Your task to perform on an android device: uninstall "Pandora - Music & Podcasts" Image 0: 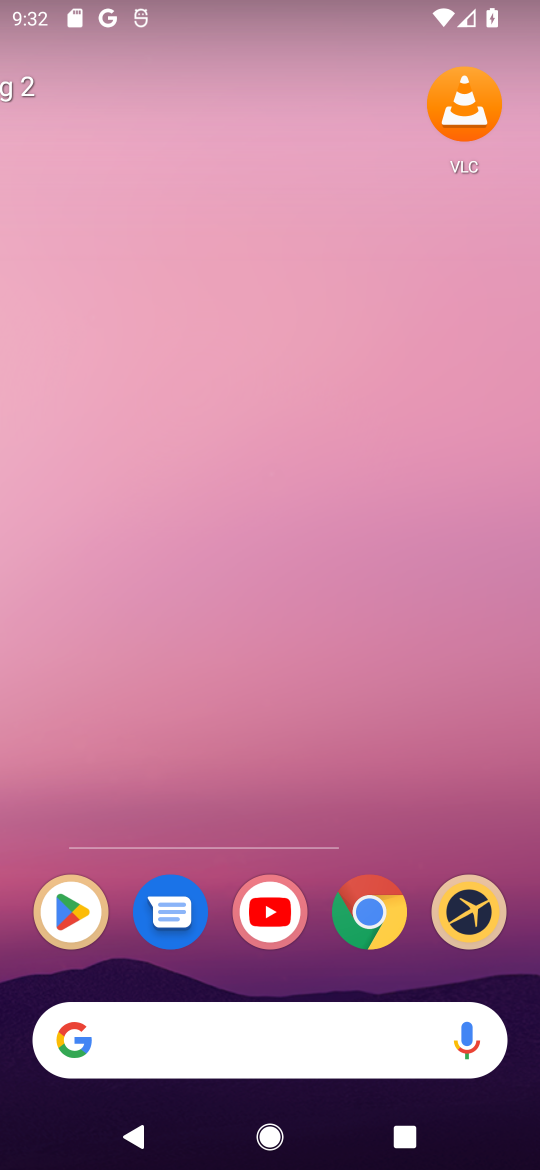
Step 0: press home button
Your task to perform on an android device: uninstall "Pandora - Music & Podcasts" Image 1: 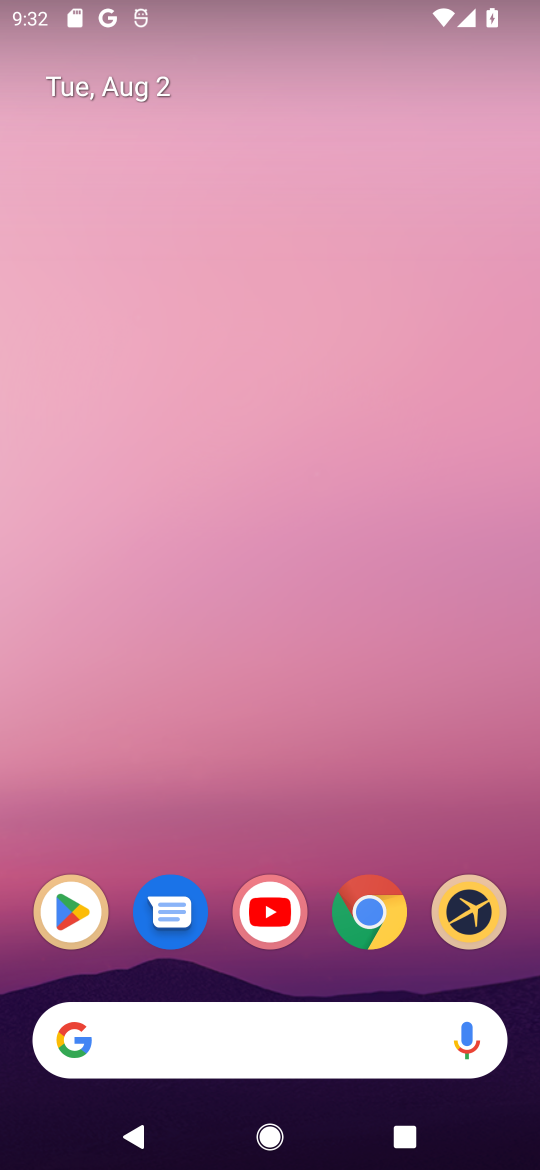
Step 1: click (66, 902)
Your task to perform on an android device: uninstall "Pandora - Music & Podcasts" Image 2: 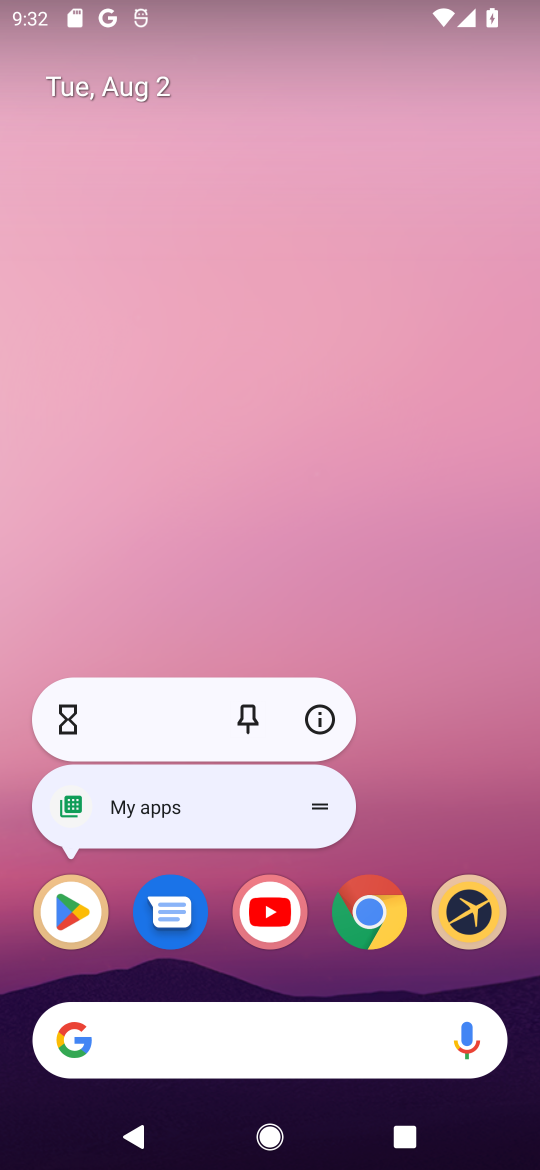
Step 2: click (58, 904)
Your task to perform on an android device: uninstall "Pandora - Music & Podcasts" Image 3: 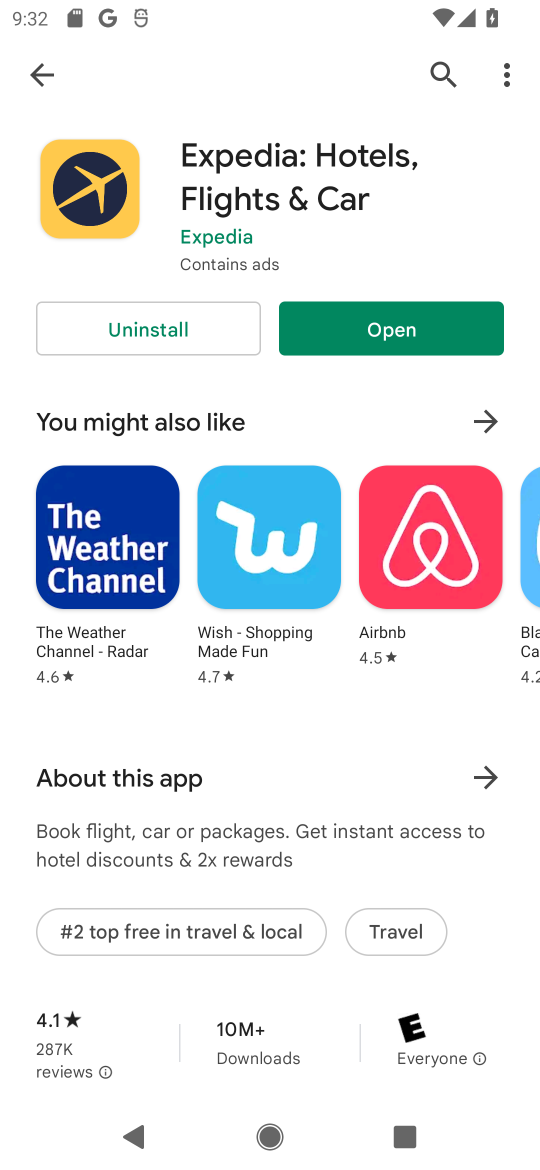
Step 3: click (423, 68)
Your task to perform on an android device: uninstall "Pandora - Music & Podcasts" Image 4: 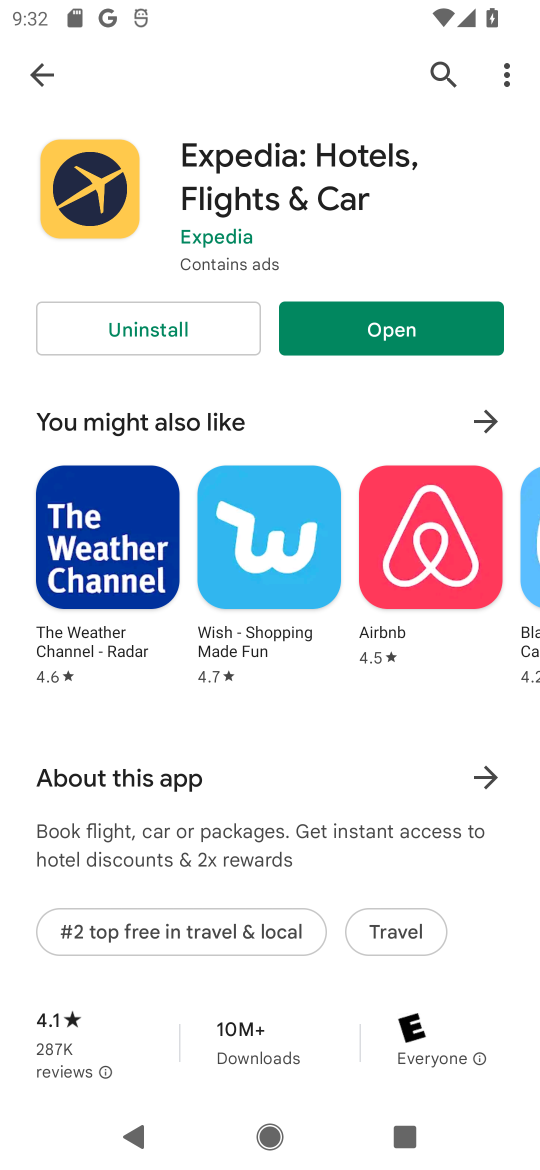
Step 4: click (444, 61)
Your task to perform on an android device: uninstall "Pandora - Music & Podcasts" Image 5: 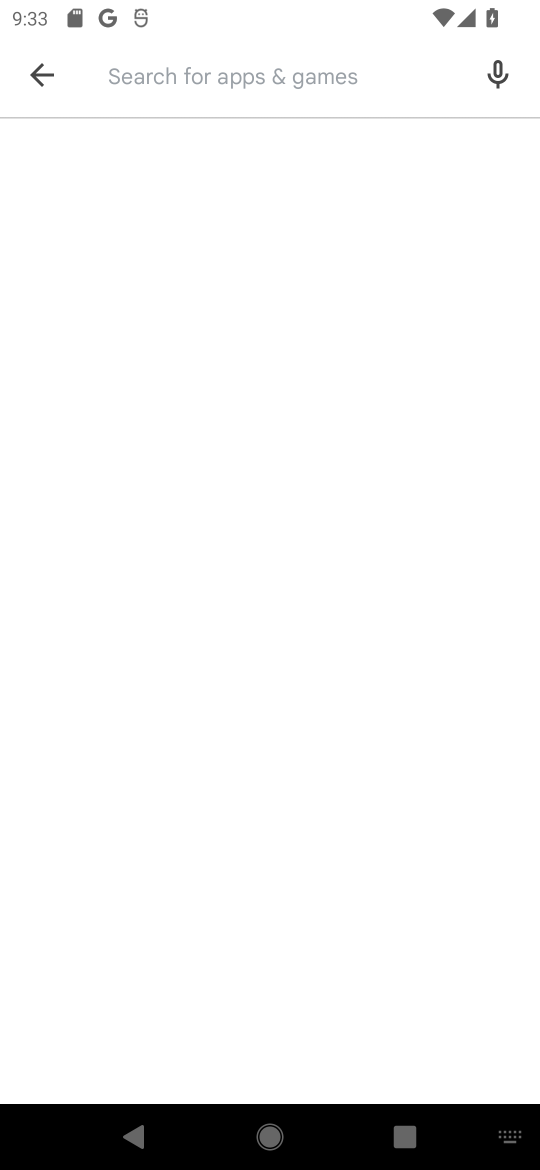
Step 5: type "Pandora - Music & Podcasts"
Your task to perform on an android device: uninstall "Pandora - Music & Podcasts" Image 6: 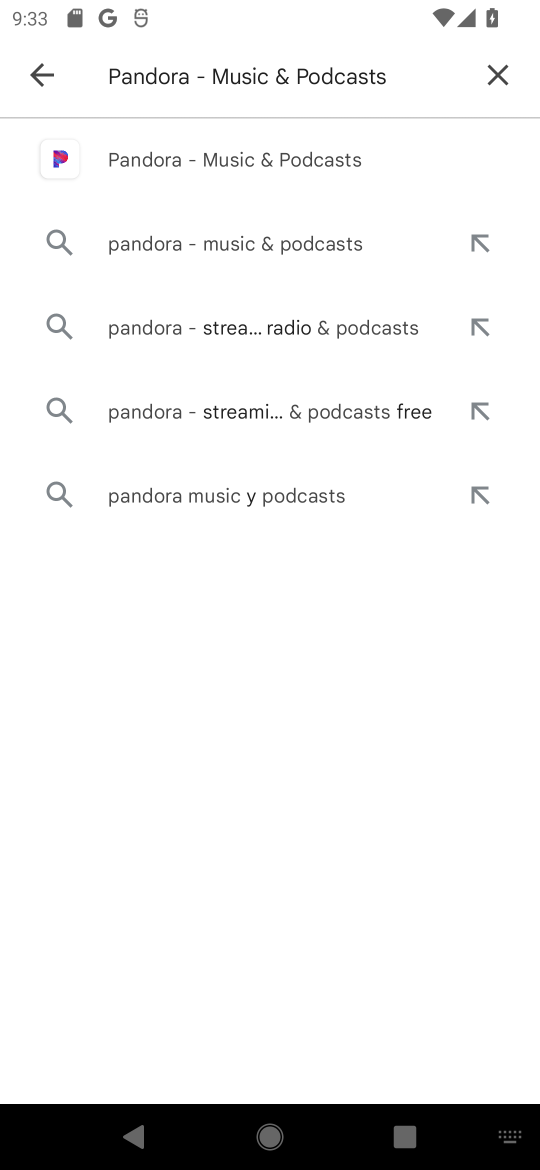
Step 6: click (268, 159)
Your task to perform on an android device: uninstall "Pandora - Music & Podcasts" Image 7: 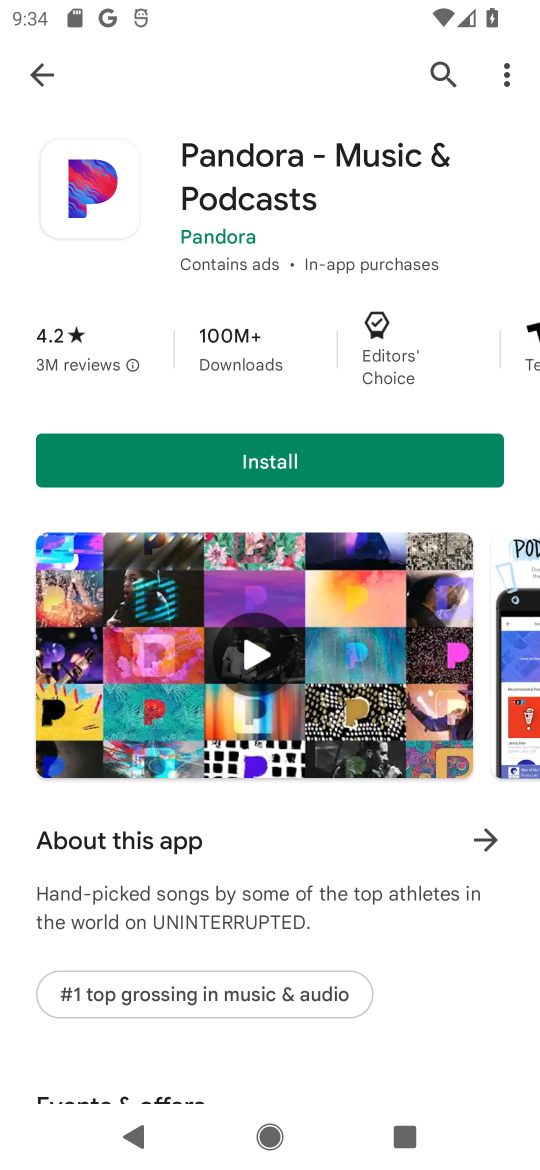
Step 7: task complete